Your task to perform on an android device: Open the calendar and show me this week's events? Image 0: 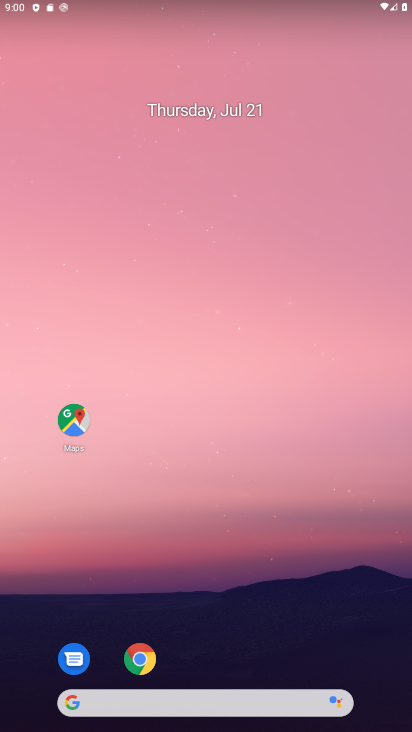
Step 0: drag from (205, 661) to (293, 12)
Your task to perform on an android device: Open the calendar and show me this week's events? Image 1: 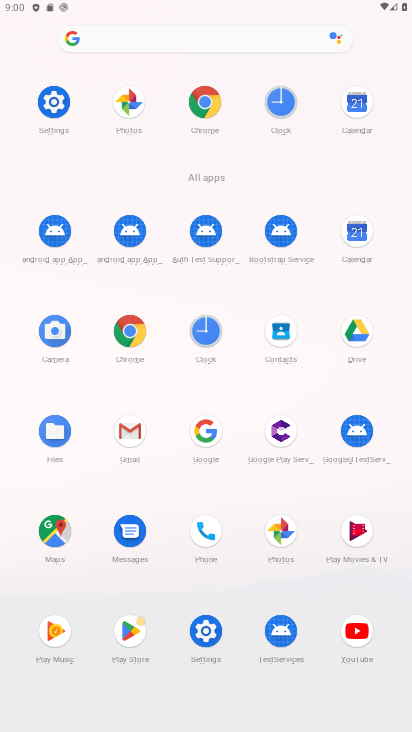
Step 1: click (360, 232)
Your task to perform on an android device: Open the calendar and show me this week's events? Image 2: 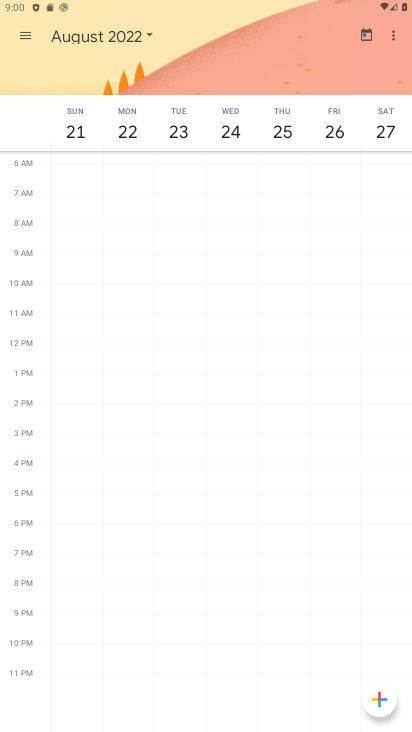
Step 2: click (363, 36)
Your task to perform on an android device: Open the calendar and show me this week's events? Image 3: 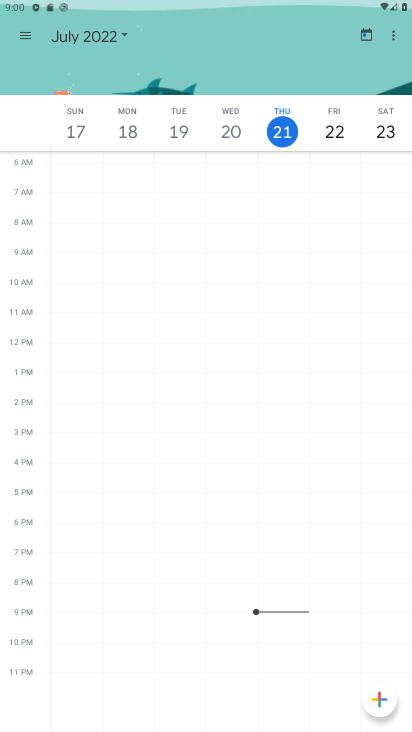
Step 3: task complete